Your task to perform on an android device: Open location settings Image 0: 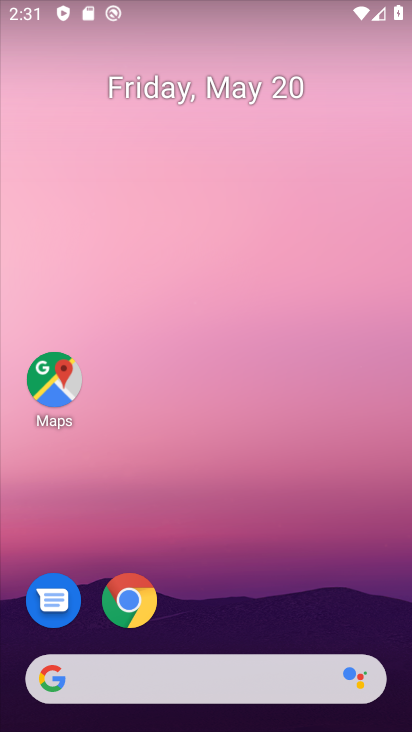
Step 0: drag from (376, 590) to (378, 162)
Your task to perform on an android device: Open location settings Image 1: 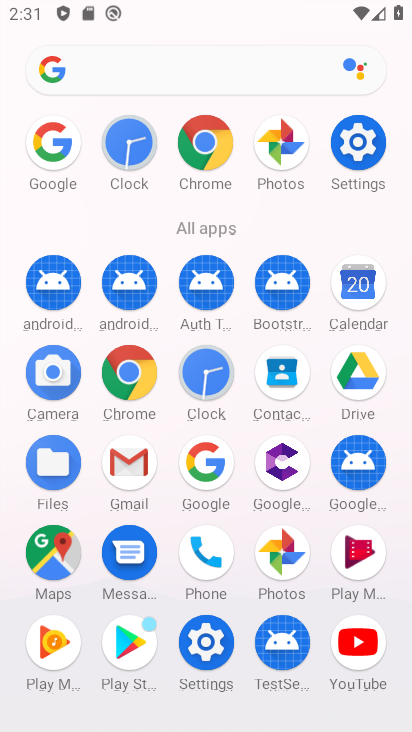
Step 1: click (349, 155)
Your task to perform on an android device: Open location settings Image 2: 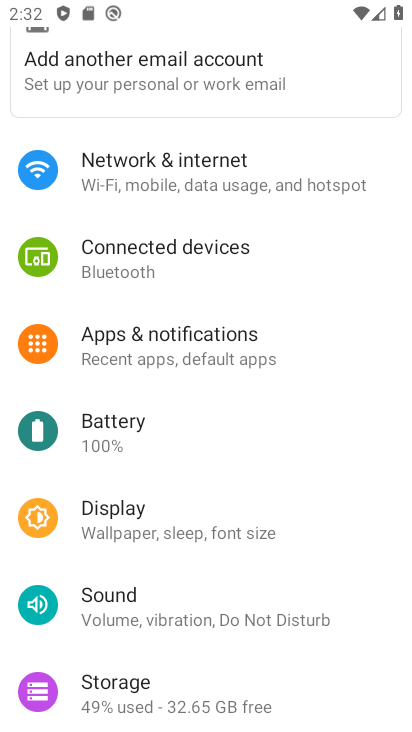
Step 2: drag from (361, 318) to (339, 448)
Your task to perform on an android device: Open location settings Image 3: 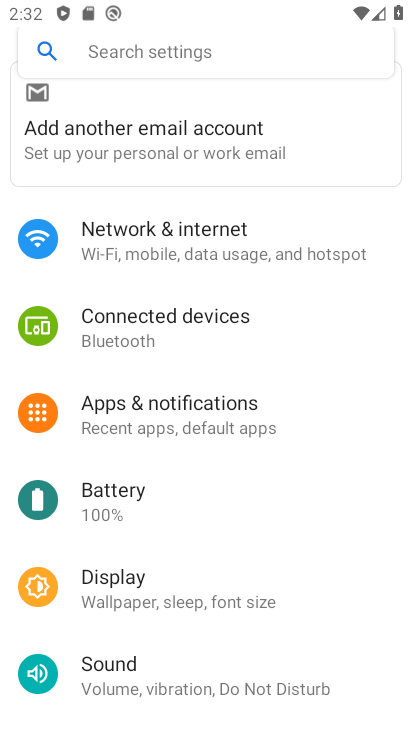
Step 3: drag from (347, 223) to (343, 416)
Your task to perform on an android device: Open location settings Image 4: 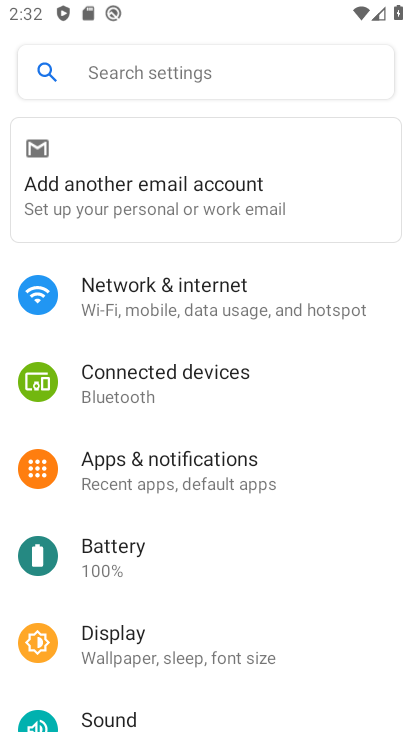
Step 4: drag from (344, 235) to (344, 391)
Your task to perform on an android device: Open location settings Image 5: 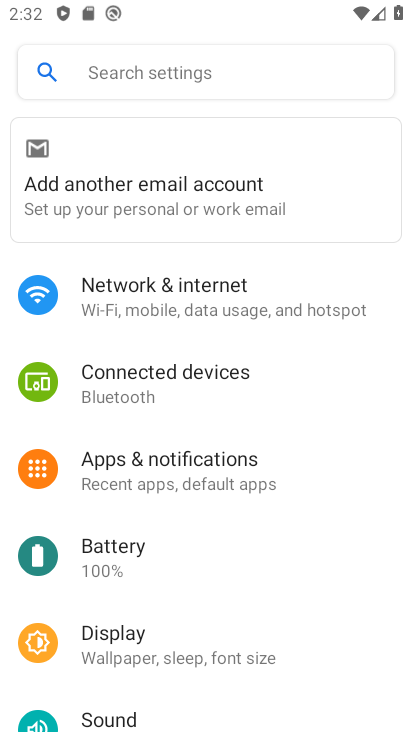
Step 5: drag from (350, 510) to (350, 437)
Your task to perform on an android device: Open location settings Image 6: 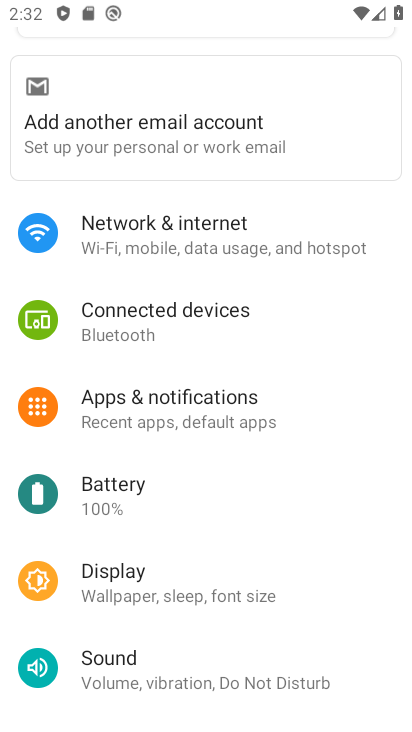
Step 6: drag from (350, 522) to (353, 436)
Your task to perform on an android device: Open location settings Image 7: 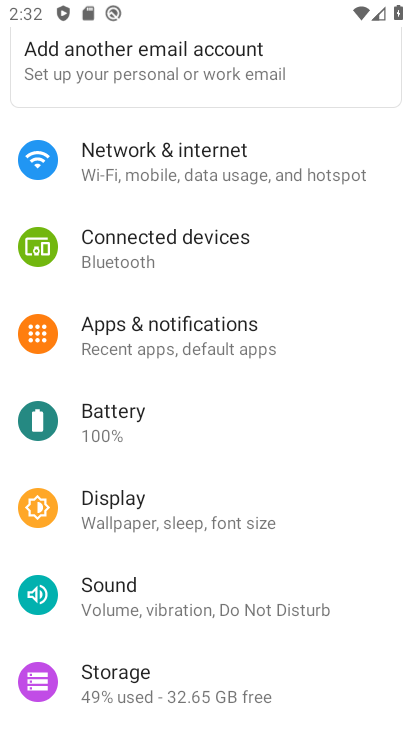
Step 7: drag from (357, 576) to (359, 464)
Your task to perform on an android device: Open location settings Image 8: 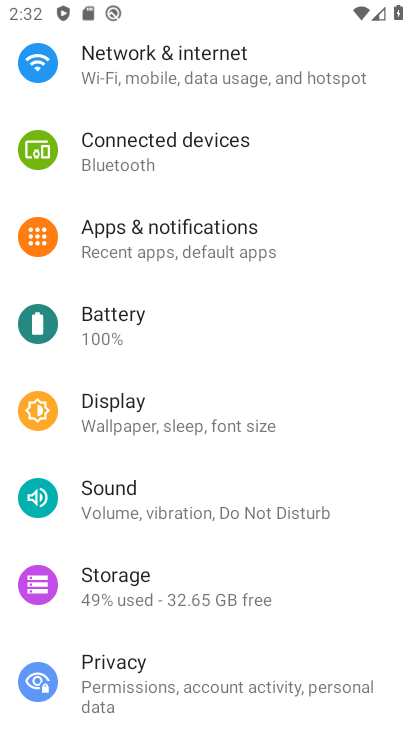
Step 8: drag from (351, 580) to (349, 485)
Your task to perform on an android device: Open location settings Image 9: 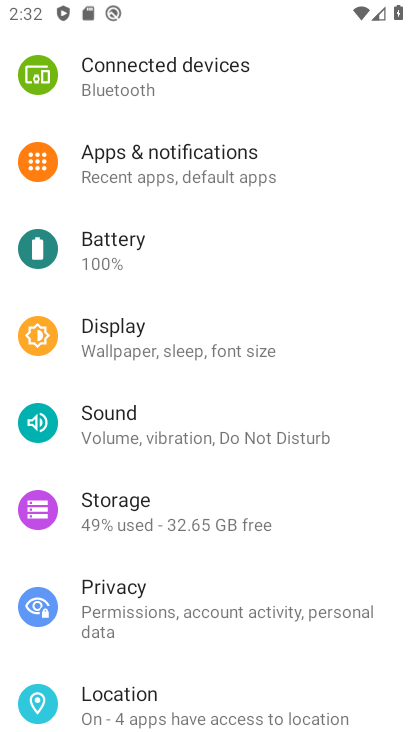
Step 9: drag from (348, 577) to (345, 498)
Your task to perform on an android device: Open location settings Image 10: 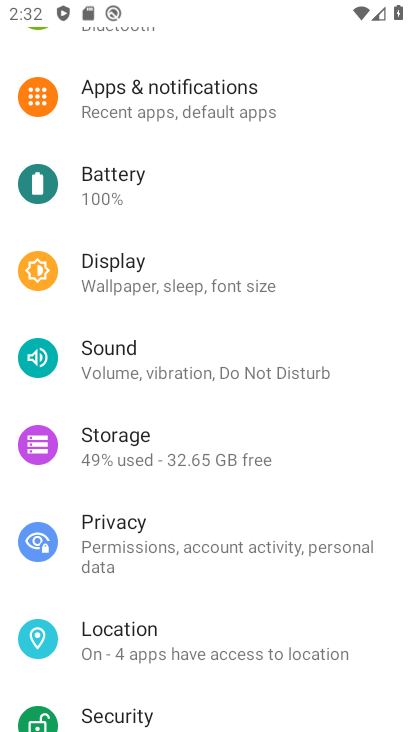
Step 10: drag from (341, 593) to (342, 515)
Your task to perform on an android device: Open location settings Image 11: 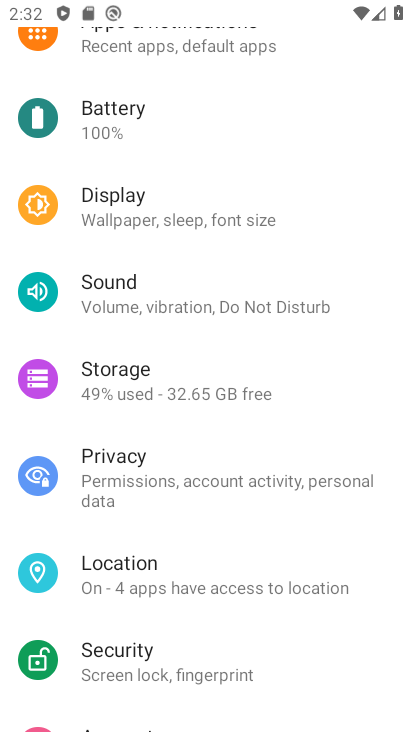
Step 11: drag from (340, 625) to (339, 537)
Your task to perform on an android device: Open location settings Image 12: 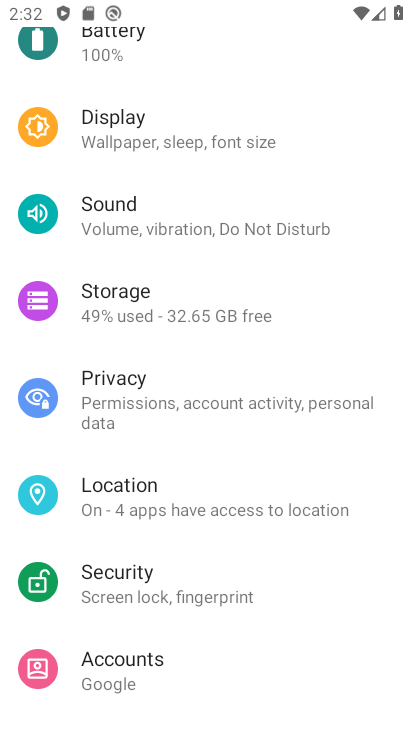
Step 12: drag from (342, 625) to (341, 557)
Your task to perform on an android device: Open location settings Image 13: 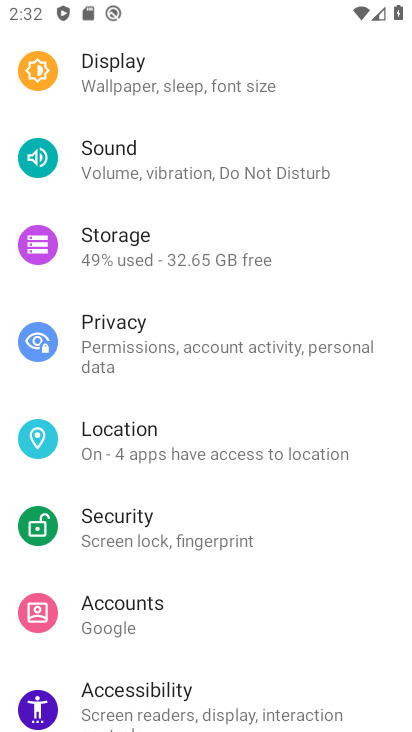
Step 13: drag from (331, 616) to (330, 542)
Your task to perform on an android device: Open location settings Image 14: 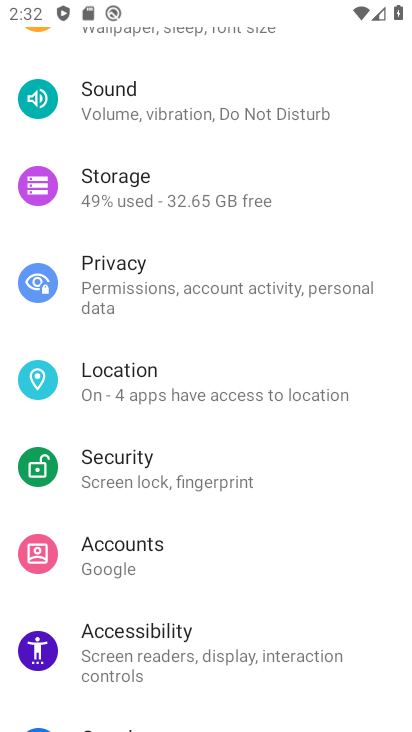
Step 14: drag from (336, 619) to (335, 536)
Your task to perform on an android device: Open location settings Image 15: 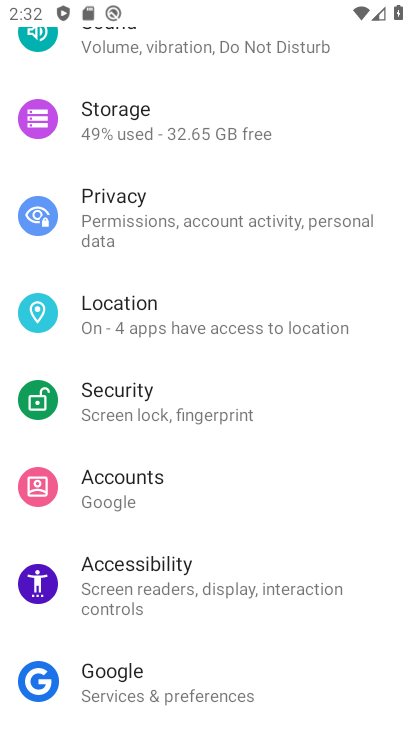
Step 15: drag from (330, 631) to (329, 546)
Your task to perform on an android device: Open location settings Image 16: 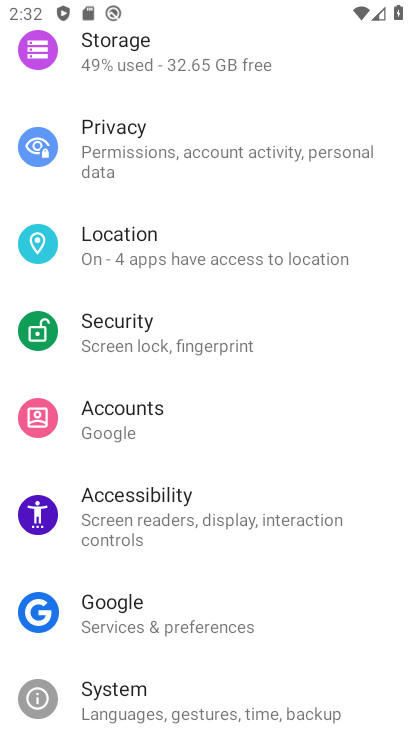
Step 16: drag from (355, 610) to (352, 481)
Your task to perform on an android device: Open location settings Image 17: 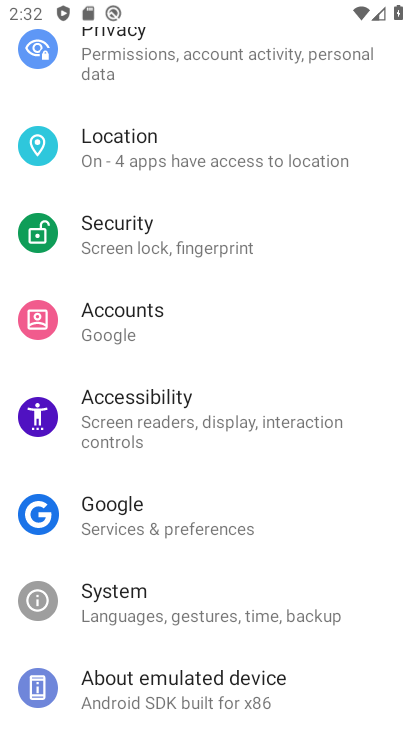
Step 17: drag from (341, 649) to (341, 488)
Your task to perform on an android device: Open location settings Image 18: 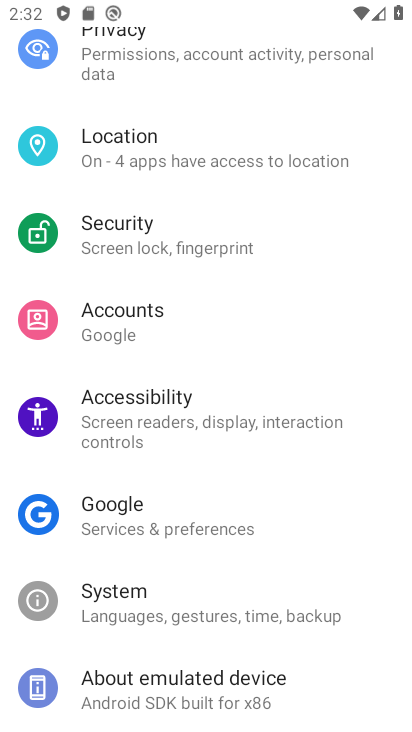
Step 18: drag from (344, 638) to (345, 526)
Your task to perform on an android device: Open location settings Image 19: 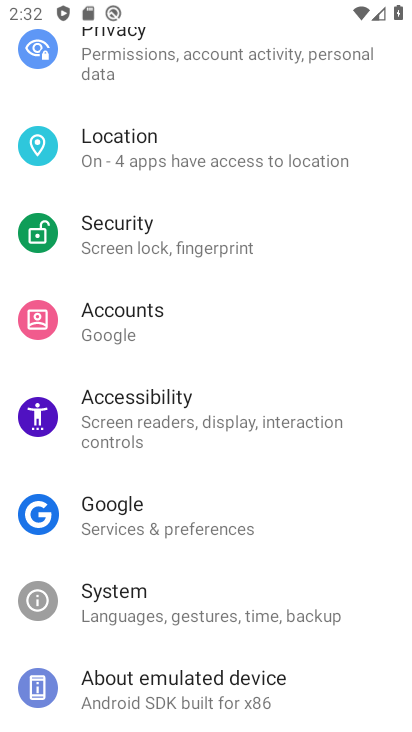
Step 19: drag from (356, 376) to (349, 465)
Your task to perform on an android device: Open location settings Image 20: 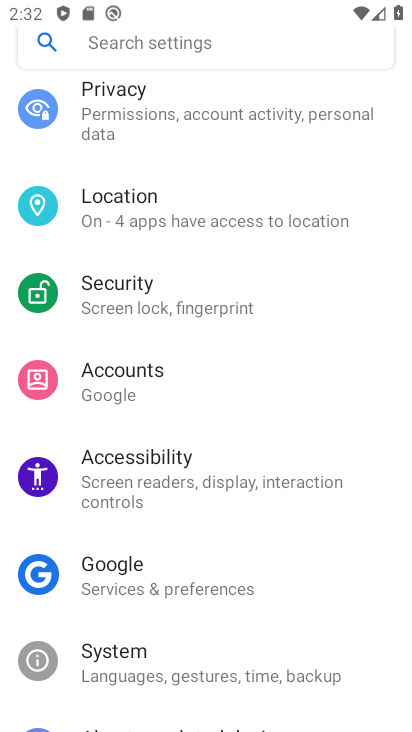
Step 20: drag from (345, 288) to (333, 408)
Your task to perform on an android device: Open location settings Image 21: 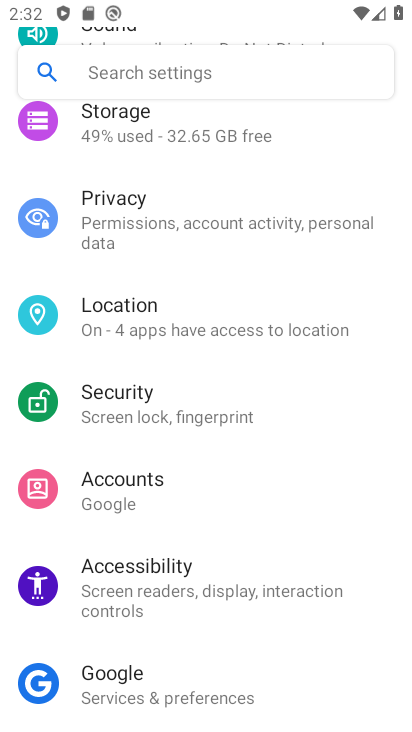
Step 21: drag from (352, 269) to (358, 385)
Your task to perform on an android device: Open location settings Image 22: 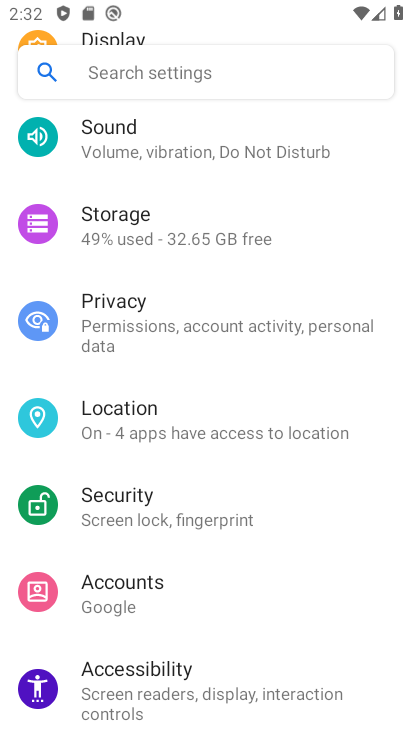
Step 22: click (199, 426)
Your task to perform on an android device: Open location settings Image 23: 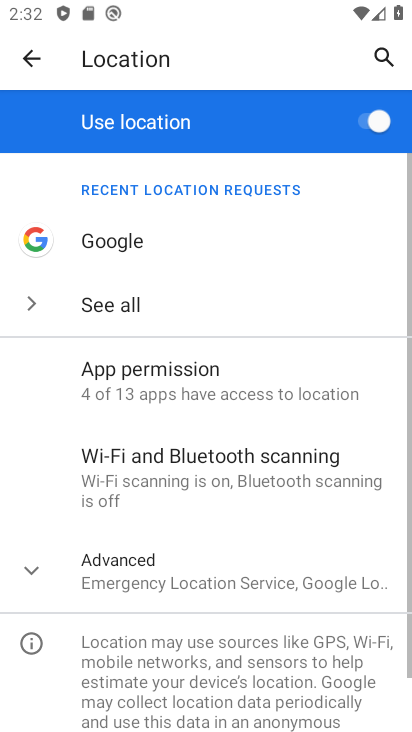
Step 23: task complete